Your task to perform on an android device: Open battery settings Image 0: 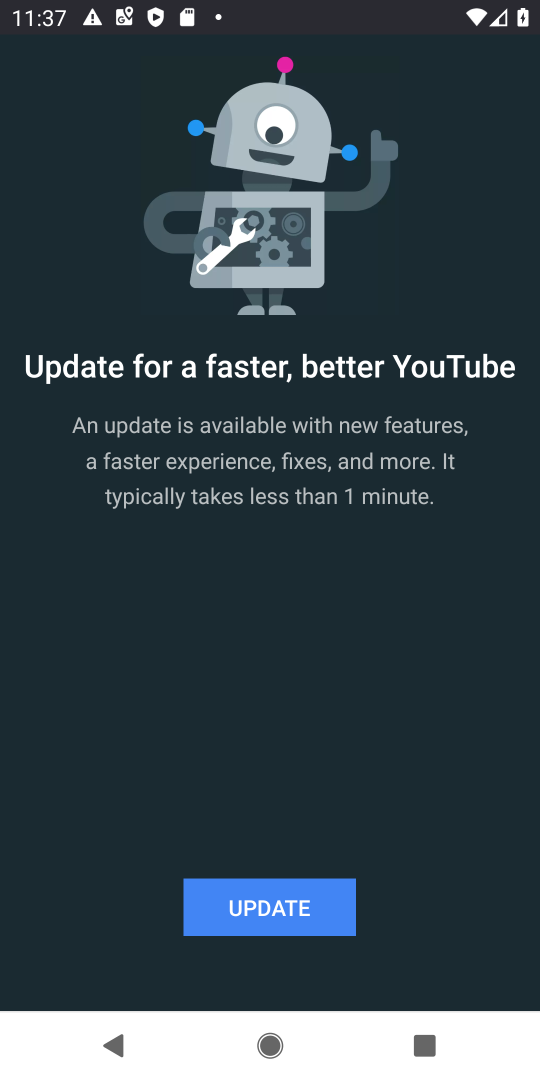
Step 0: press home button
Your task to perform on an android device: Open battery settings Image 1: 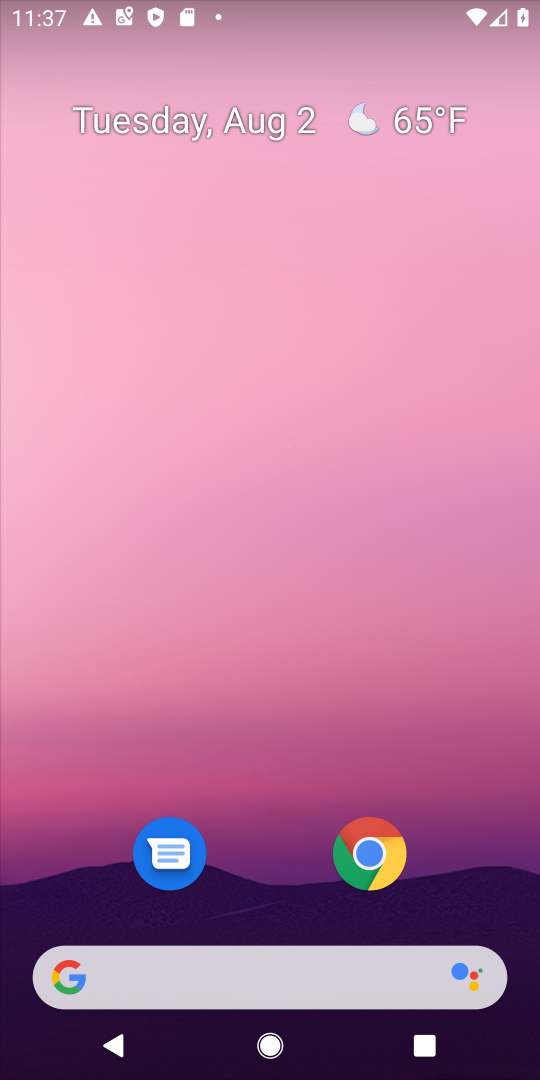
Step 1: drag from (299, 812) to (317, 120)
Your task to perform on an android device: Open battery settings Image 2: 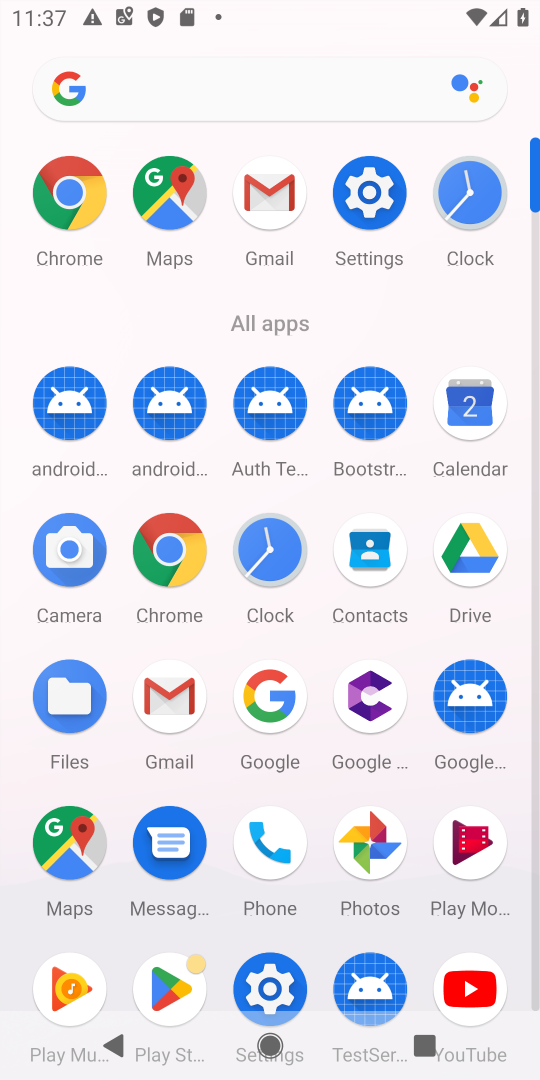
Step 2: click (355, 197)
Your task to perform on an android device: Open battery settings Image 3: 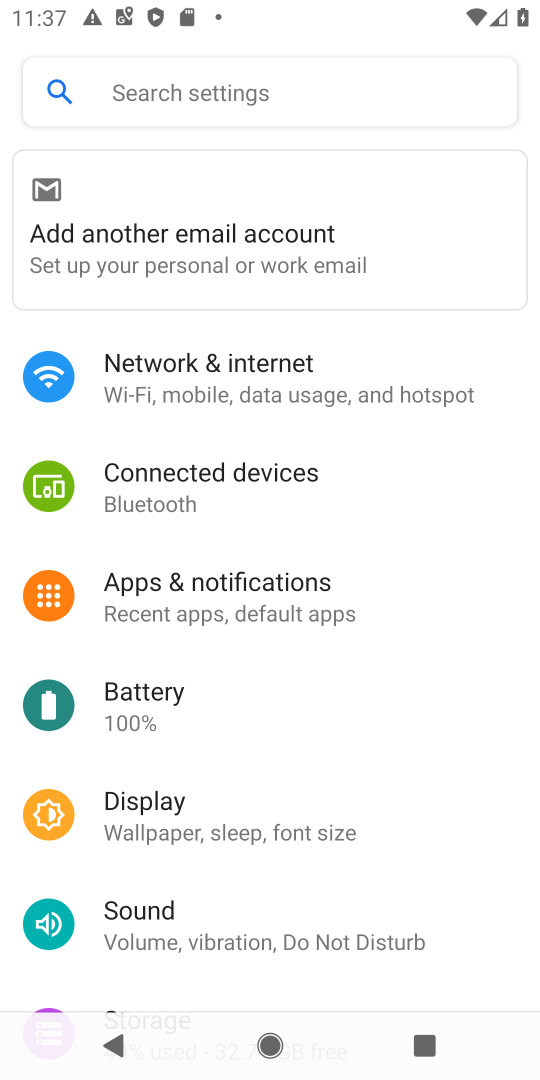
Step 3: click (128, 683)
Your task to perform on an android device: Open battery settings Image 4: 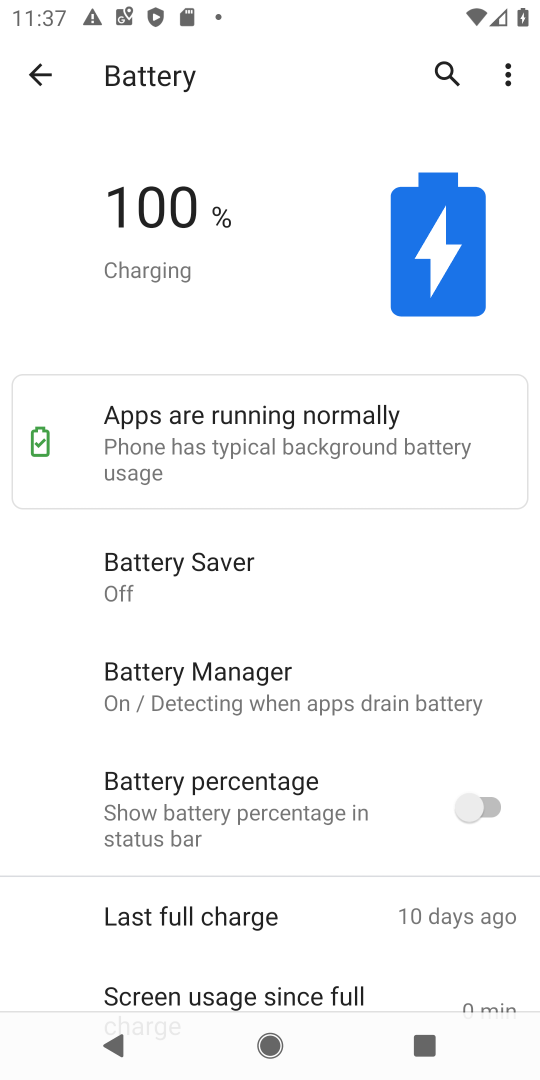
Step 4: task complete